Your task to perform on an android device: Go to calendar. Show me events next week Image 0: 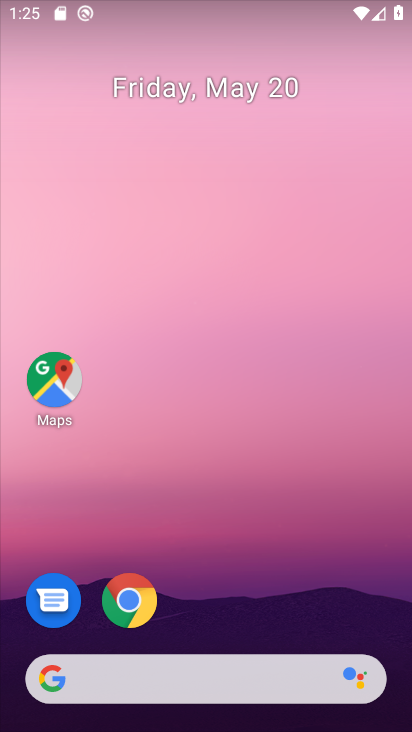
Step 0: click (210, 81)
Your task to perform on an android device: Go to calendar. Show me events next week Image 1: 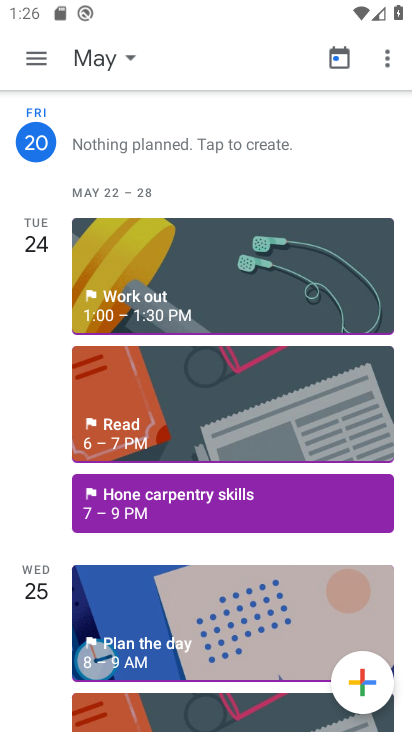
Step 1: click (28, 48)
Your task to perform on an android device: Go to calendar. Show me events next week Image 2: 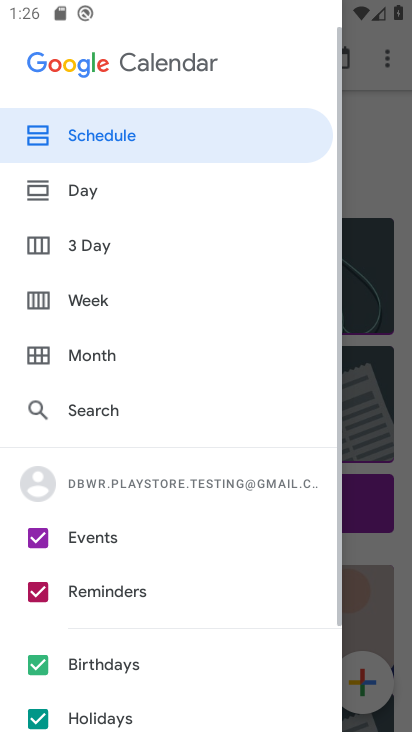
Step 2: click (117, 291)
Your task to perform on an android device: Go to calendar. Show me events next week Image 3: 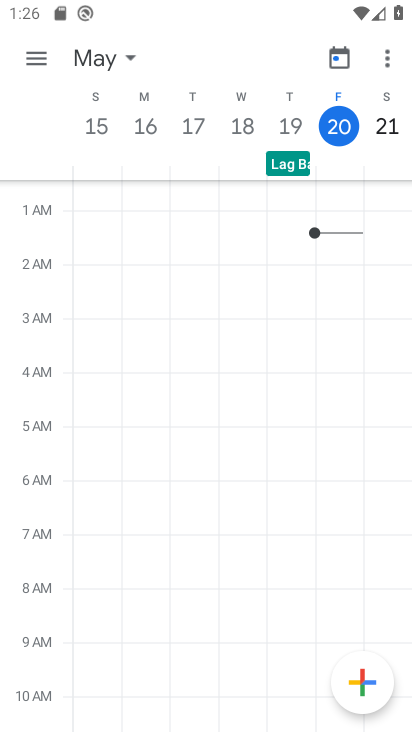
Step 3: click (129, 54)
Your task to perform on an android device: Go to calendar. Show me events next week Image 4: 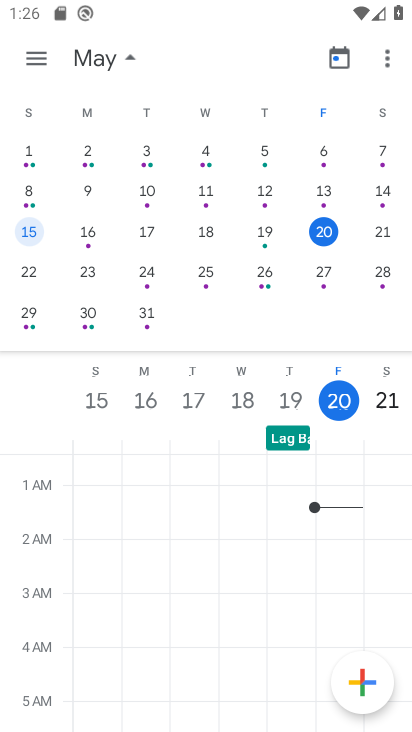
Step 4: drag from (352, 201) to (8, 323)
Your task to perform on an android device: Go to calendar. Show me events next week Image 5: 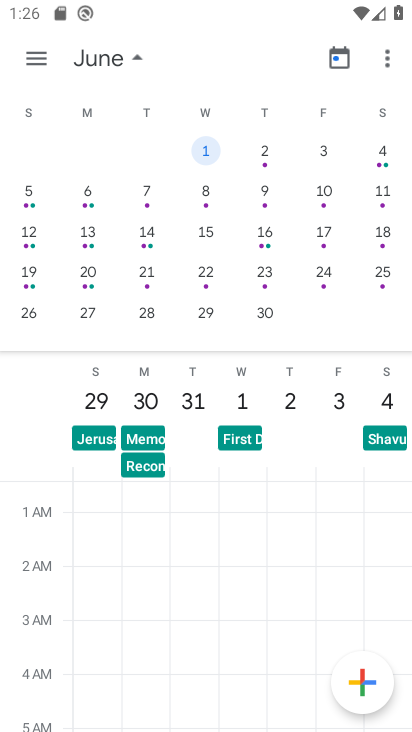
Step 5: drag from (65, 170) to (406, 134)
Your task to perform on an android device: Go to calendar. Show me events next week Image 6: 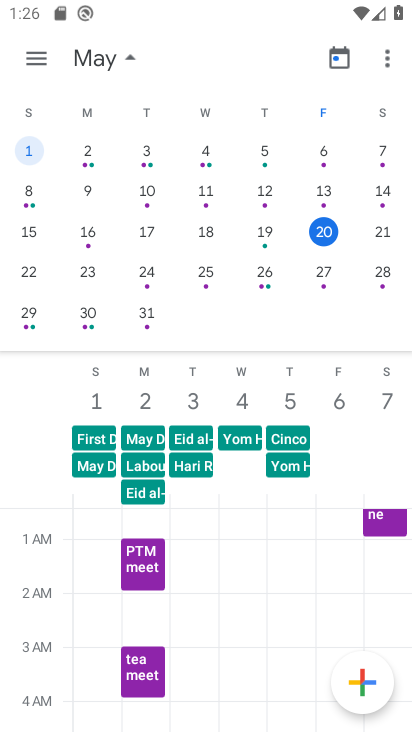
Step 6: click (25, 268)
Your task to perform on an android device: Go to calendar. Show me events next week Image 7: 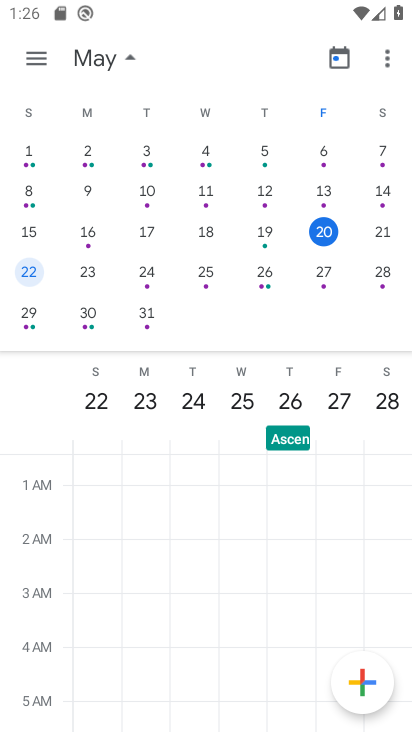
Step 7: task complete